Your task to perform on an android device: Open calendar and show me the fourth week of next month Image 0: 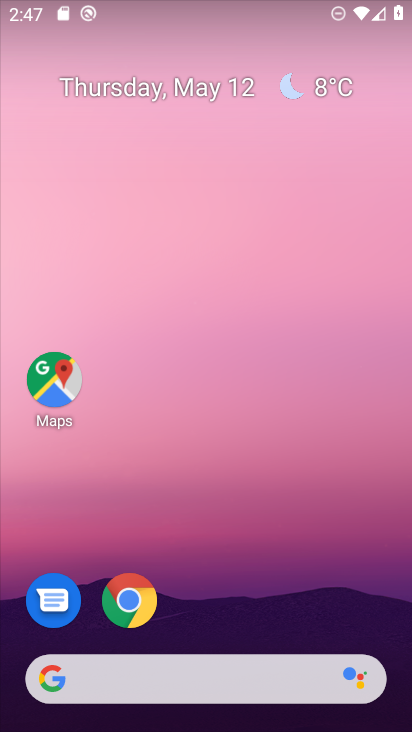
Step 0: drag from (203, 722) to (207, 263)
Your task to perform on an android device: Open calendar and show me the fourth week of next month Image 1: 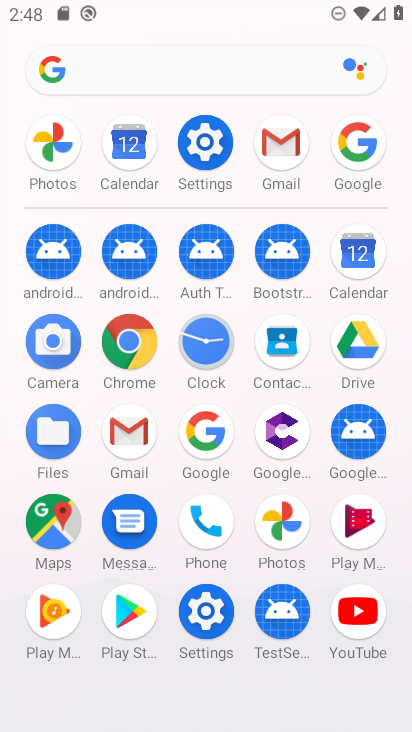
Step 1: click (350, 262)
Your task to perform on an android device: Open calendar and show me the fourth week of next month Image 2: 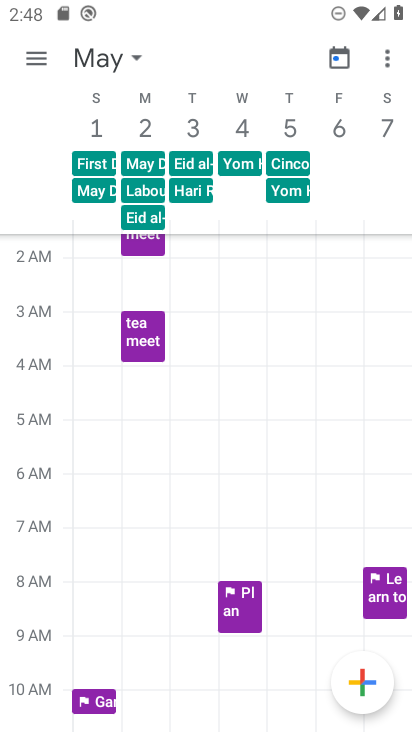
Step 2: click (133, 54)
Your task to perform on an android device: Open calendar and show me the fourth week of next month Image 3: 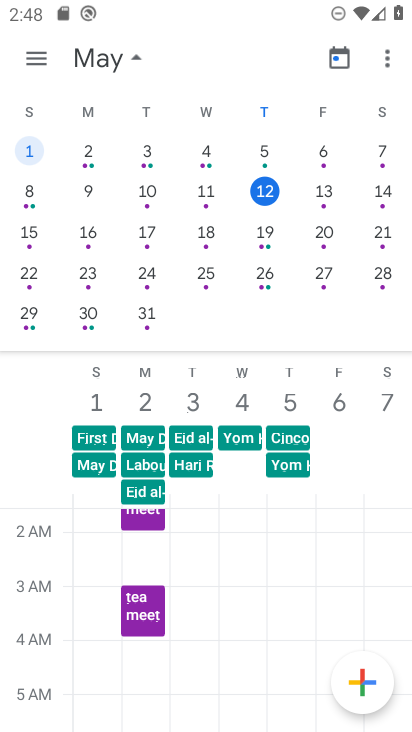
Step 3: drag from (345, 207) to (6, 212)
Your task to perform on an android device: Open calendar and show me the fourth week of next month Image 4: 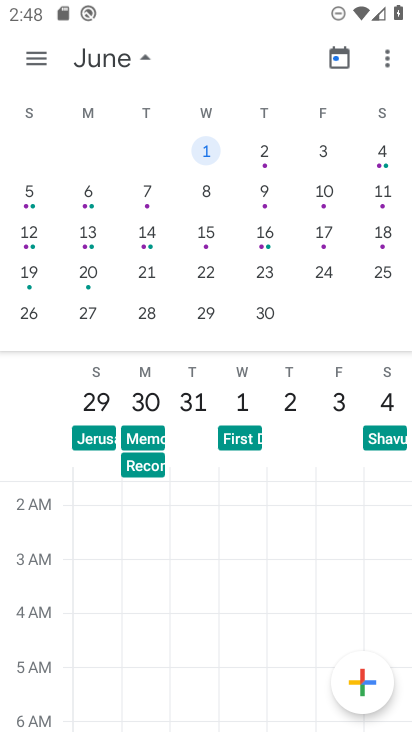
Step 4: click (88, 305)
Your task to perform on an android device: Open calendar and show me the fourth week of next month Image 5: 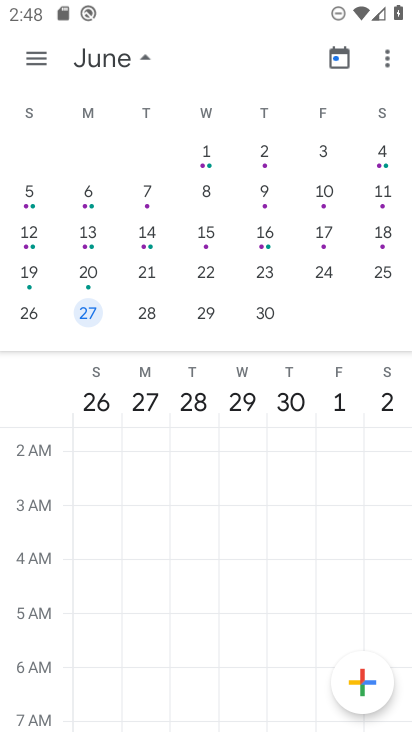
Step 5: click (30, 58)
Your task to perform on an android device: Open calendar and show me the fourth week of next month Image 6: 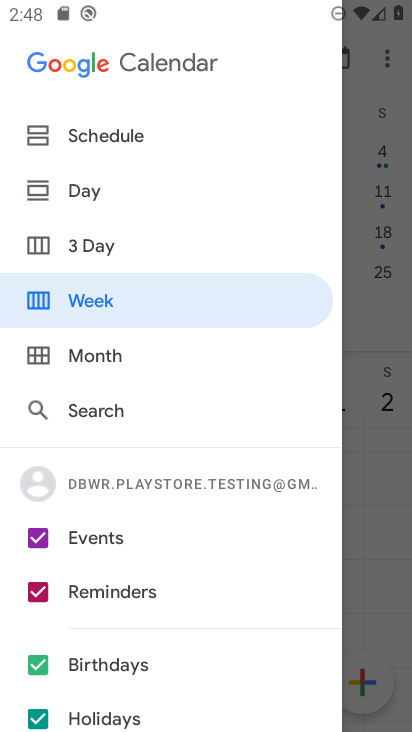
Step 6: click (99, 297)
Your task to perform on an android device: Open calendar and show me the fourth week of next month Image 7: 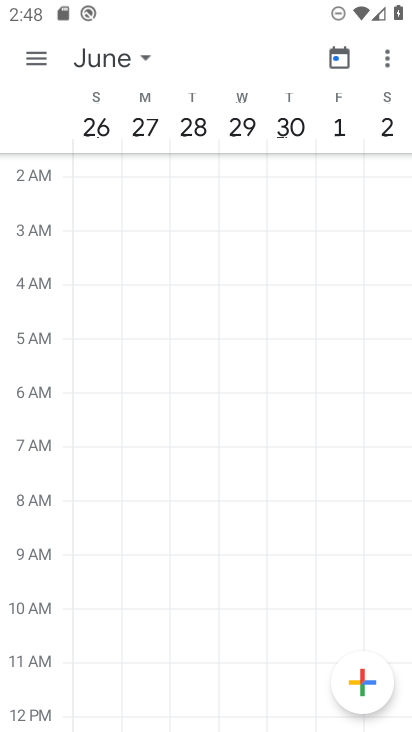
Step 7: task complete